Your task to perform on an android device: Open location settings Image 0: 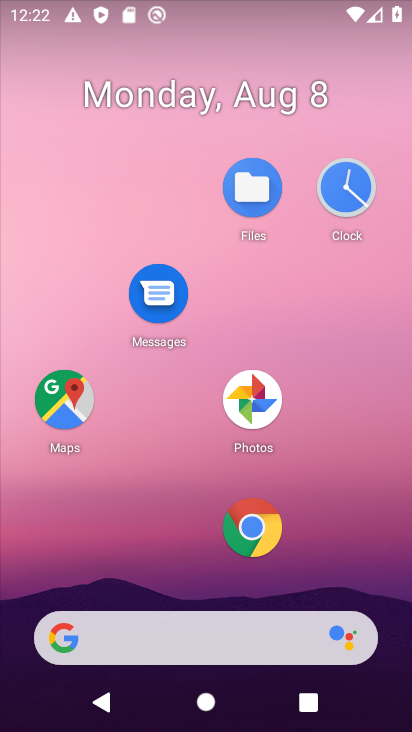
Step 0: drag from (350, 519) to (303, 146)
Your task to perform on an android device: Open location settings Image 1: 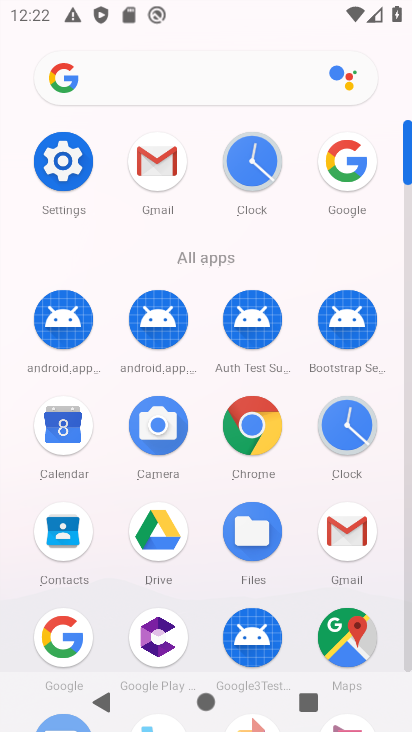
Step 1: drag from (310, 500) to (294, 308)
Your task to perform on an android device: Open location settings Image 2: 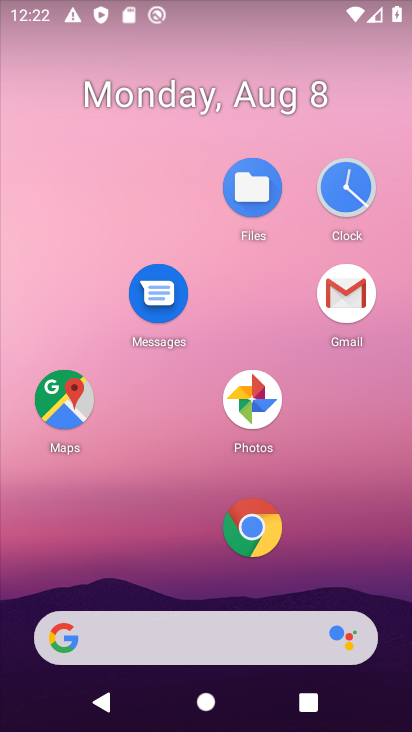
Step 2: drag from (153, 544) to (172, 80)
Your task to perform on an android device: Open location settings Image 3: 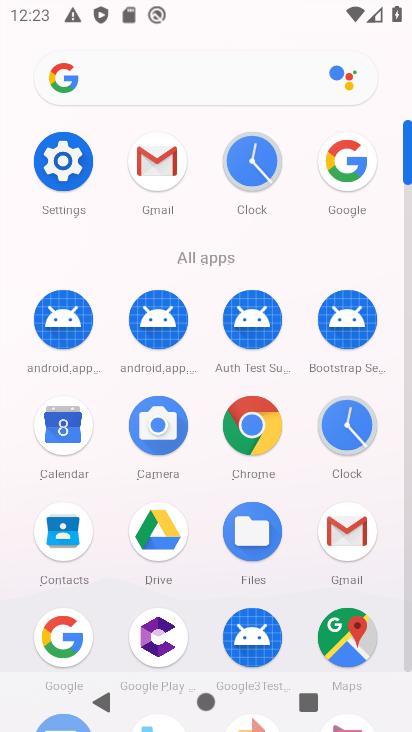
Step 3: drag from (302, 582) to (306, 99)
Your task to perform on an android device: Open location settings Image 4: 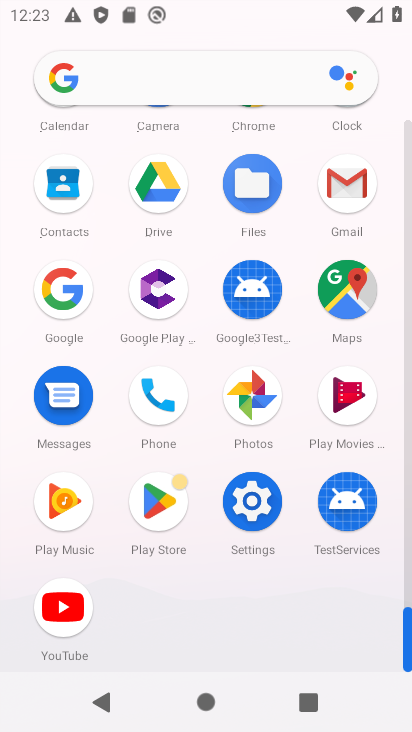
Step 4: click (253, 502)
Your task to perform on an android device: Open location settings Image 5: 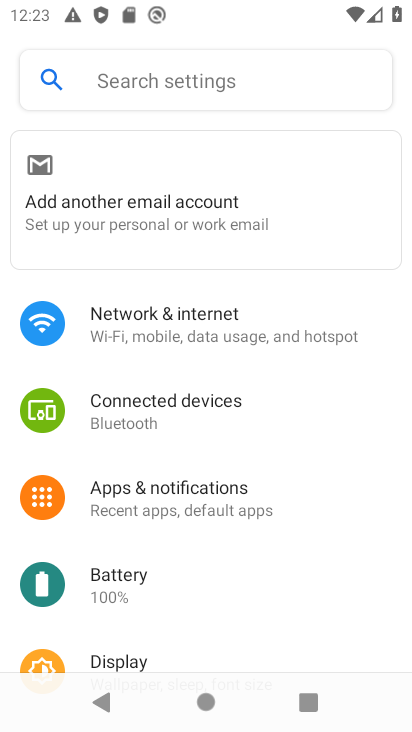
Step 5: task complete